Your task to perform on an android device: choose inbox layout in the gmail app Image 0: 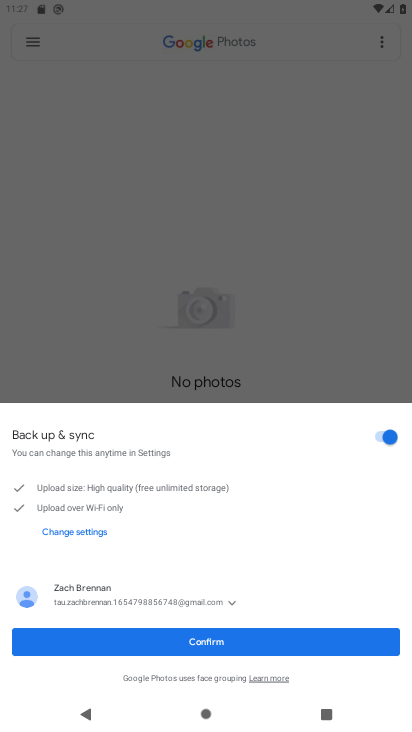
Step 0: press home button
Your task to perform on an android device: choose inbox layout in the gmail app Image 1: 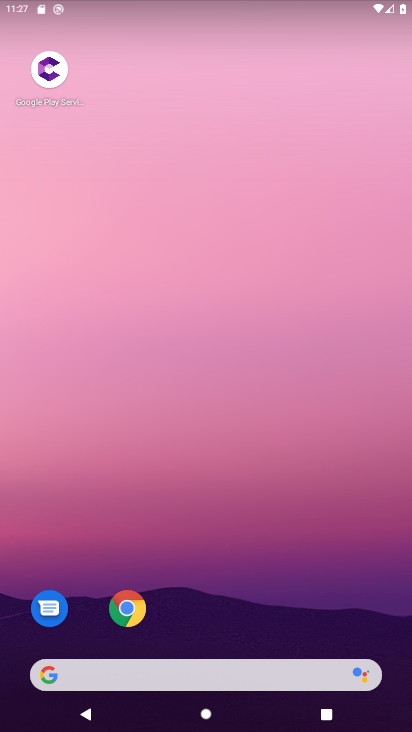
Step 1: drag from (196, 467) to (255, 7)
Your task to perform on an android device: choose inbox layout in the gmail app Image 2: 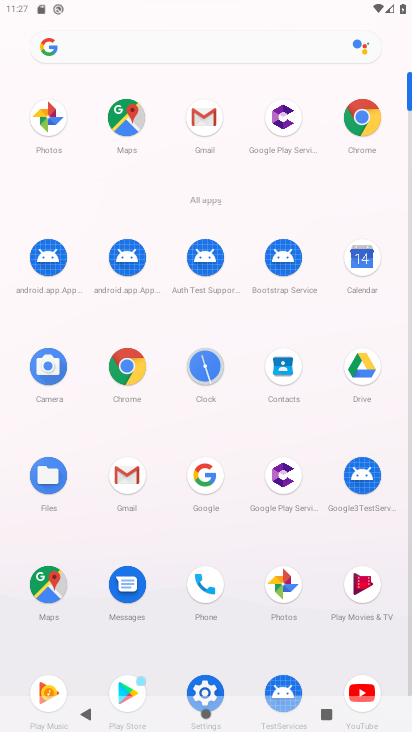
Step 2: click (123, 476)
Your task to perform on an android device: choose inbox layout in the gmail app Image 3: 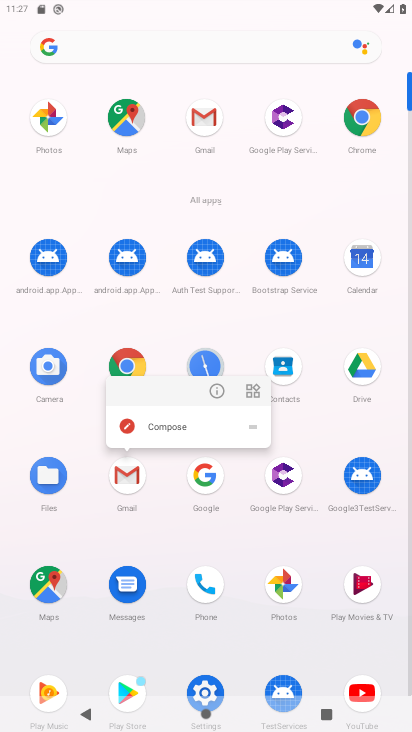
Step 3: click (219, 397)
Your task to perform on an android device: choose inbox layout in the gmail app Image 4: 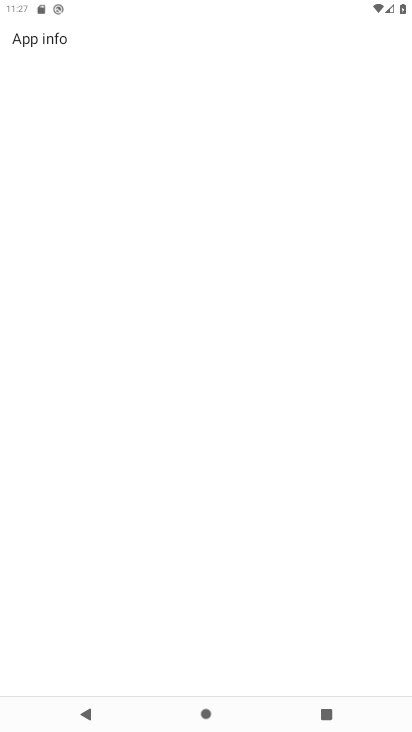
Step 4: drag from (205, 540) to (205, 371)
Your task to perform on an android device: choose inbox layout in the gmail app Image 5: 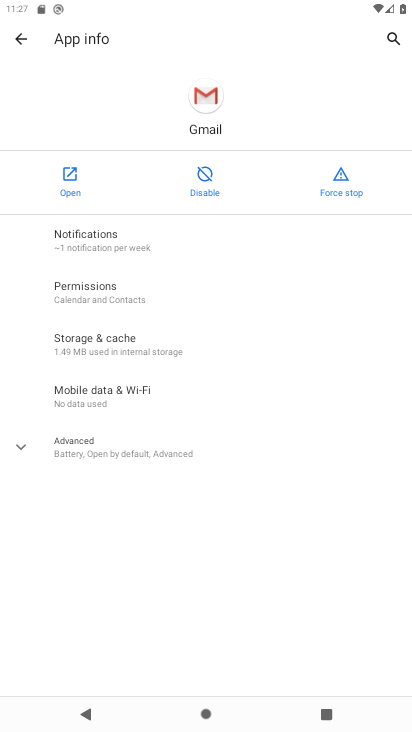
Step 5: click (79, 184)
Your task to perform on an android device: choose inbox layout in the gmail app Image 6: 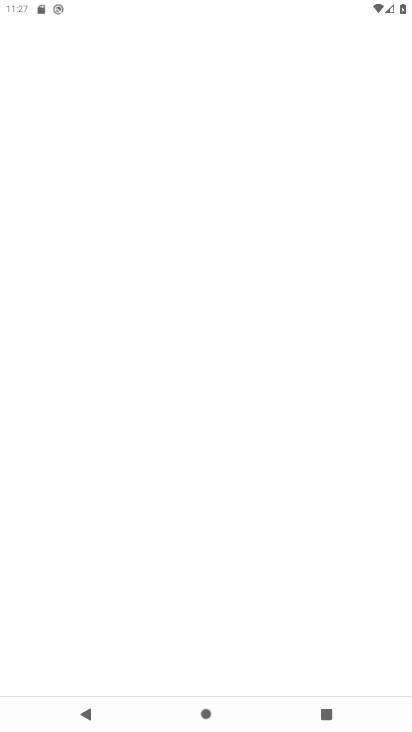
Step 6: drag from (195, 581) to (160, 348)
Your task to perform on an android device: choose inbox layout in the gmail app Image 7: 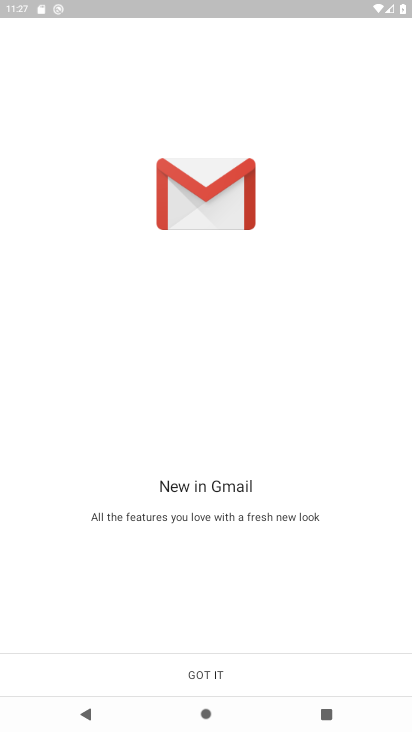
Step 7: click (190, 678)
Your task to perform on an android device: choose inbox layout in the gmail app Image 8: 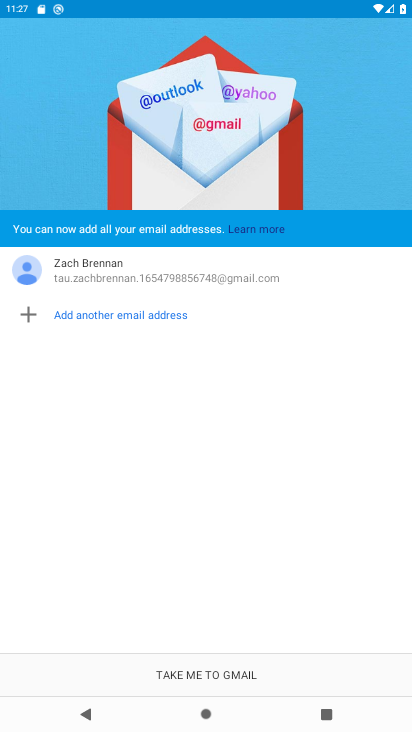
Step 8: click (200, 666)
Your task to perform on an android device: choose inbox layout in the gmail app Image 9: 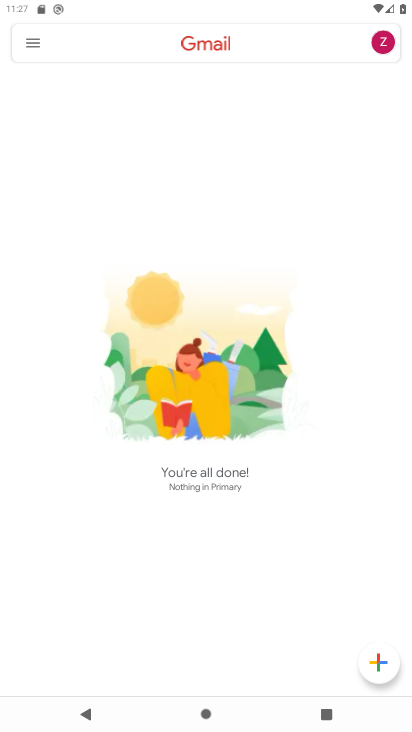
Step 9: click (33, 67)
Your task to perform on an android device: choose inbox layout in the gmail app Image 10: 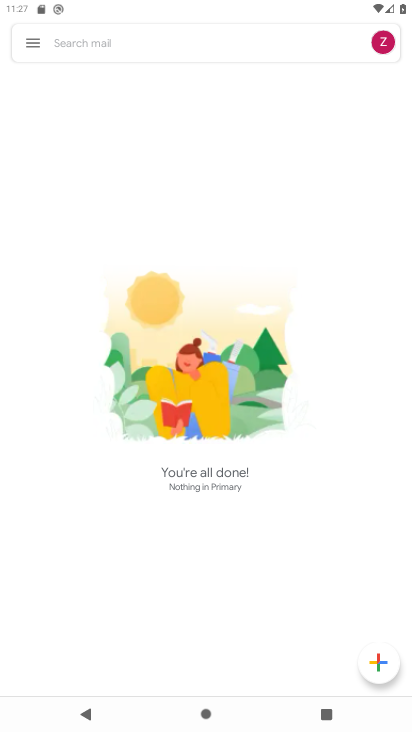
Step 10: click (37, 49)
Your task to perform on an android device: choose inbox layout in the gmail app Image 11: 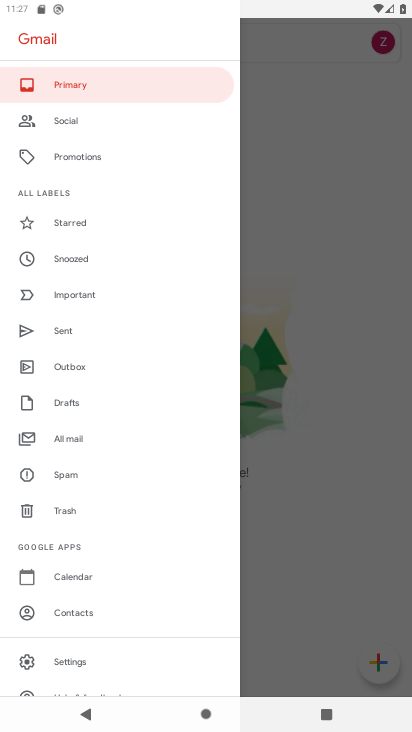
Step 11: click (81, 87)
Your task to perform on an android device: choose inbox layout in the gmail app Image 12: 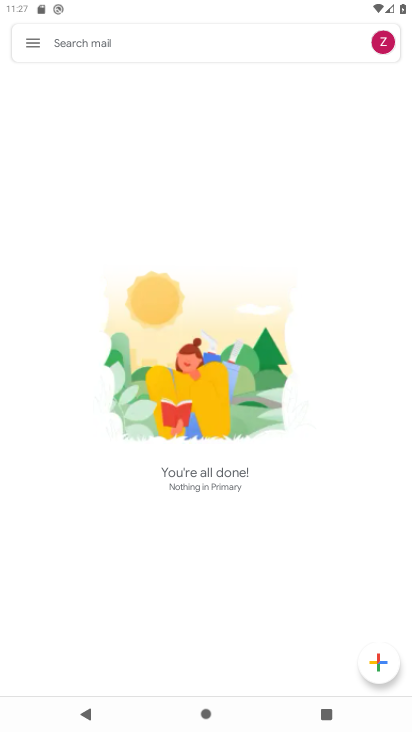
Step 12: task complete